Your task to perform on an android device: turn on airplane mode Image 0: 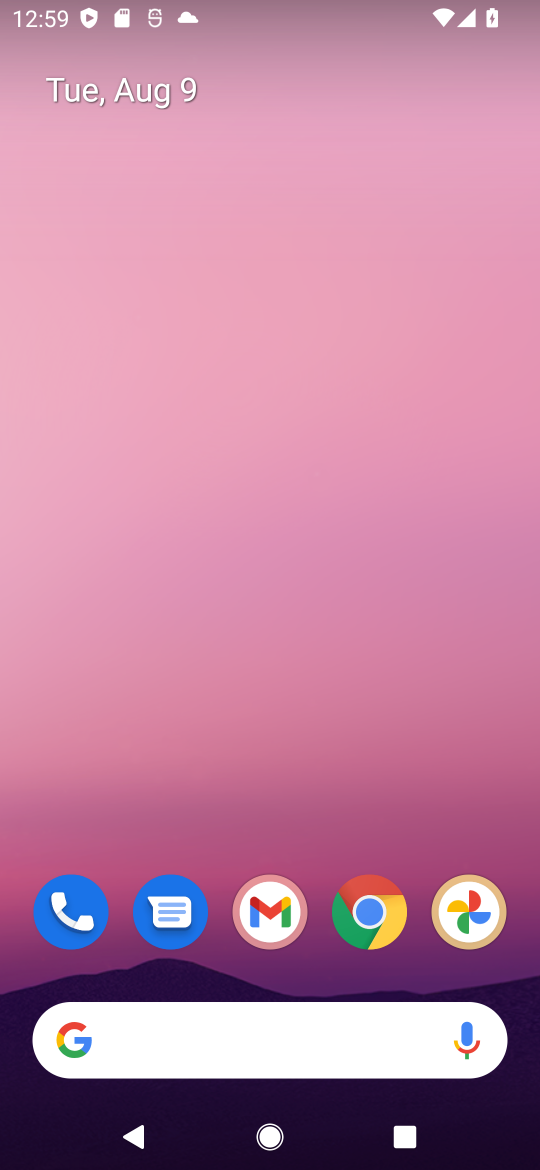
Step 0: drag from (335, 7) to (193, 915)
Your task to perform on an android device: turn on airplane mode Image 1: 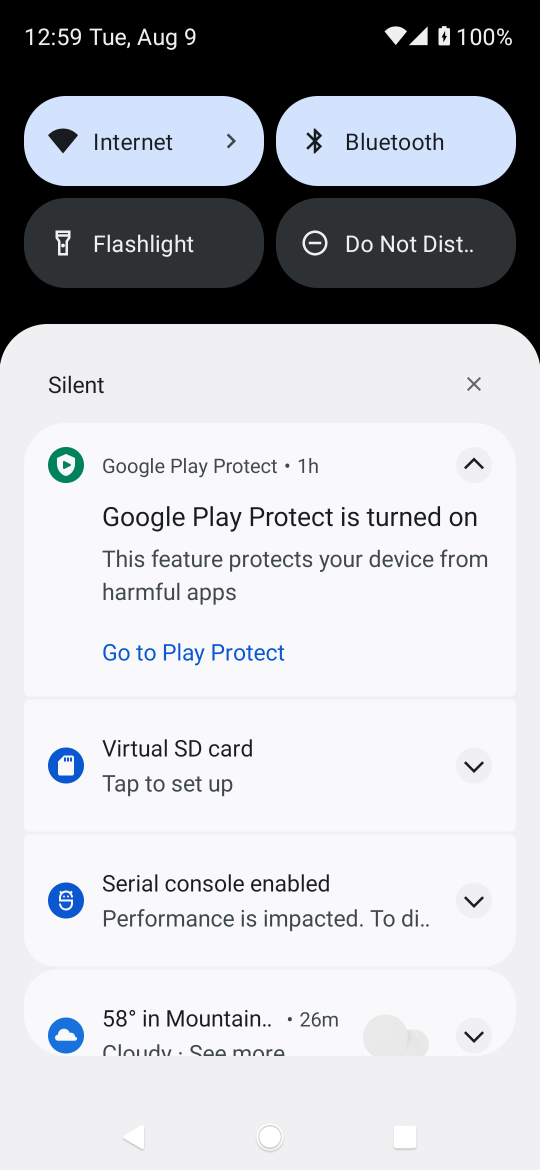
Step 1: drag from (250, 252) to (166, 767)
Your task to perform on an android device: turn on airplane mode Image 2: 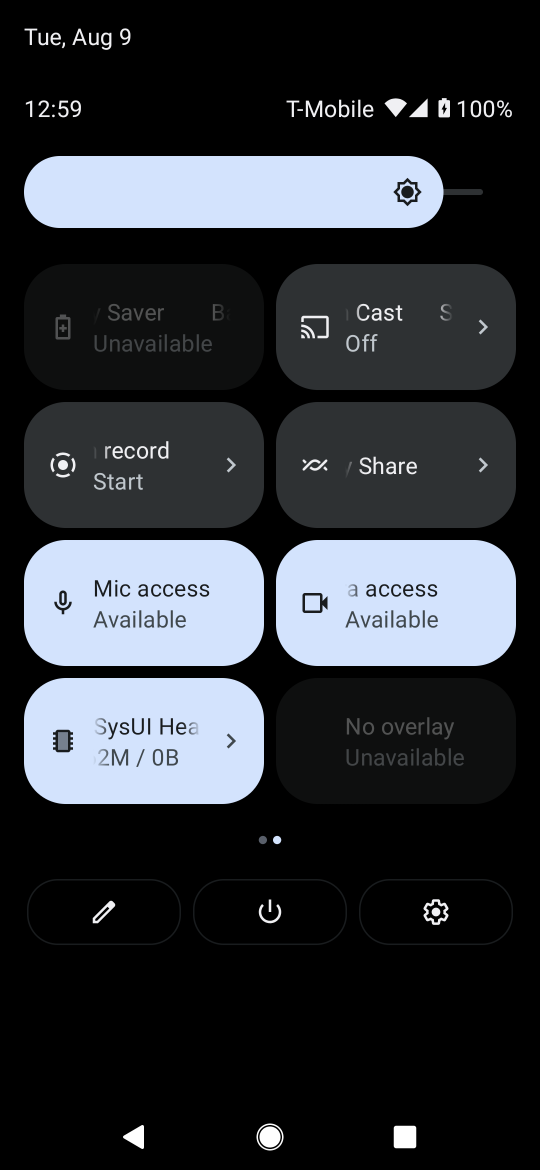
Step 2: drag from (2, 533) to (532, 614)
Your task to perform on an android device: turn on airplane mode Image 3: 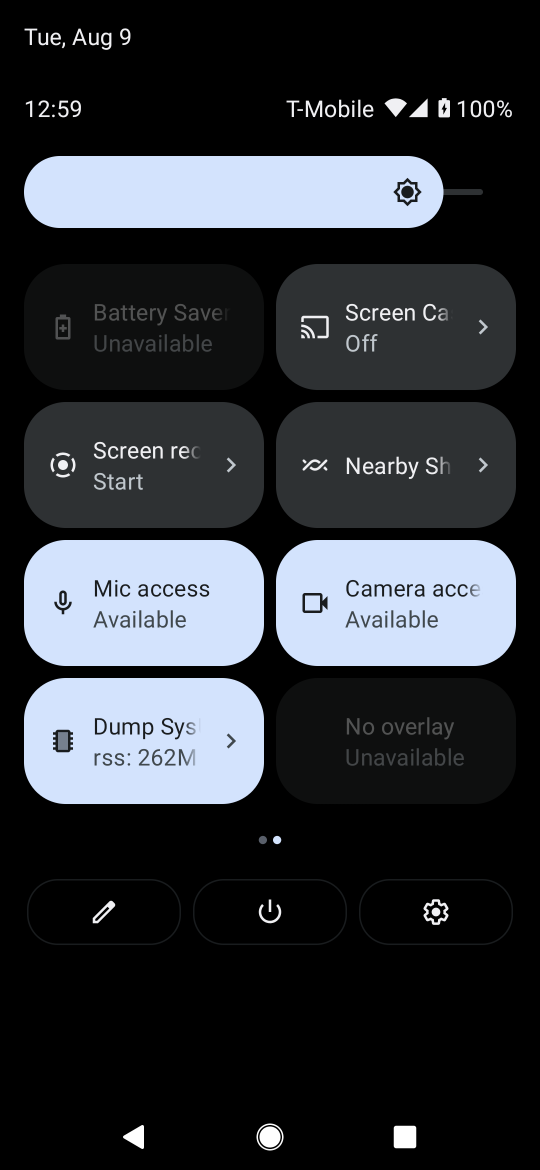
Step 3: drag from (29, 531) to (512, 592)
Your task to perform on an android device: turn on airplane mode Image 4: 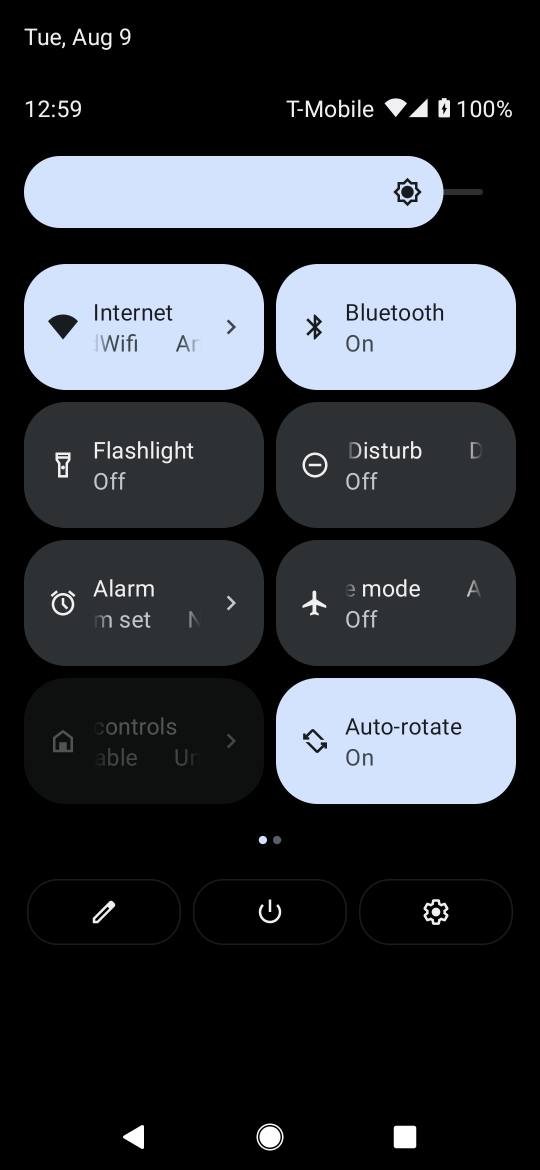
Step 4: click (442, 602)
Your task to perform on an android device: turn on airplane mode Image 5: 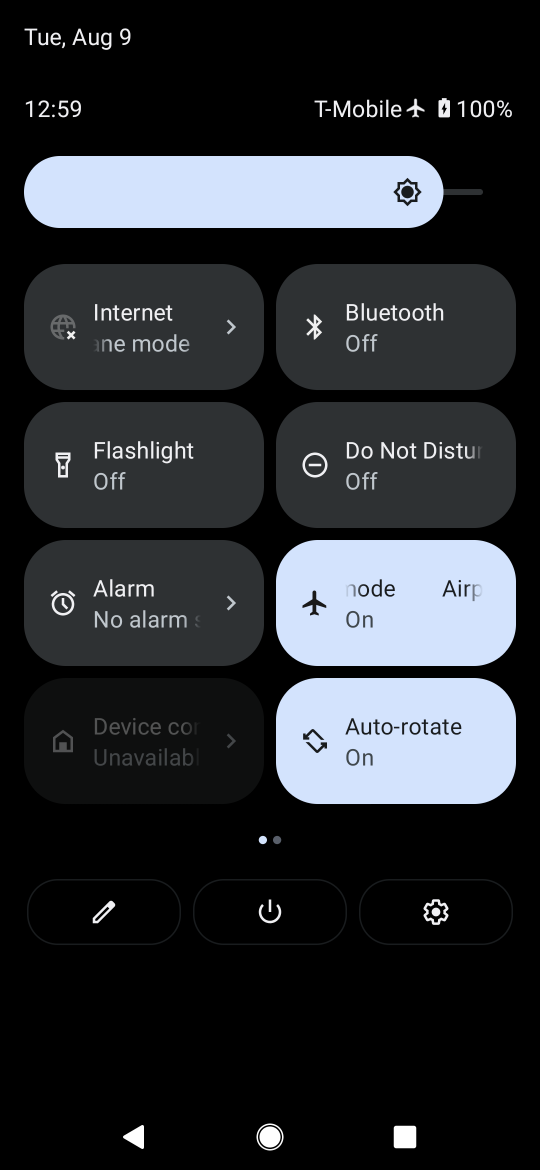
Step 5: task complete